Your task to perform on an android device: Open display settings Image 0: 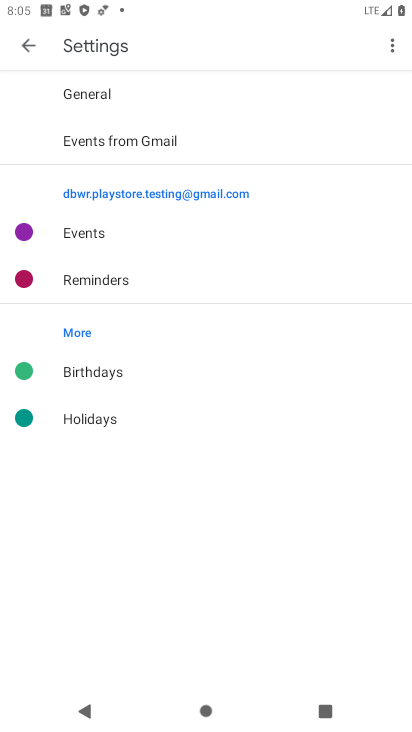
Step 0: press back button
Your task to perform on an android device: Open display settings Image 1: 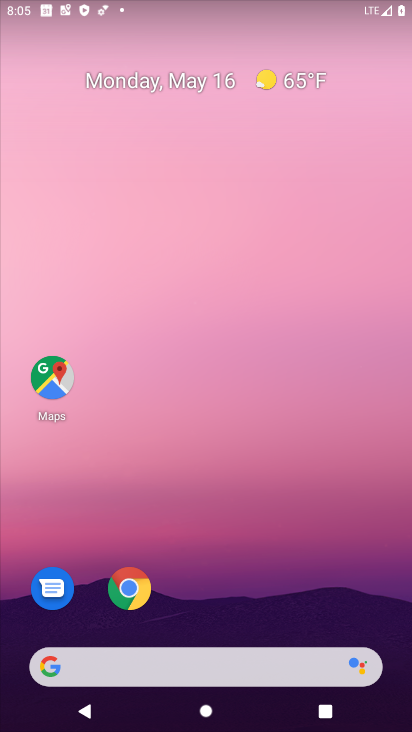
Step 1: drag from (240, 480) to (184, 45)
Your task to perform on an android device: Open display settings Image 2: 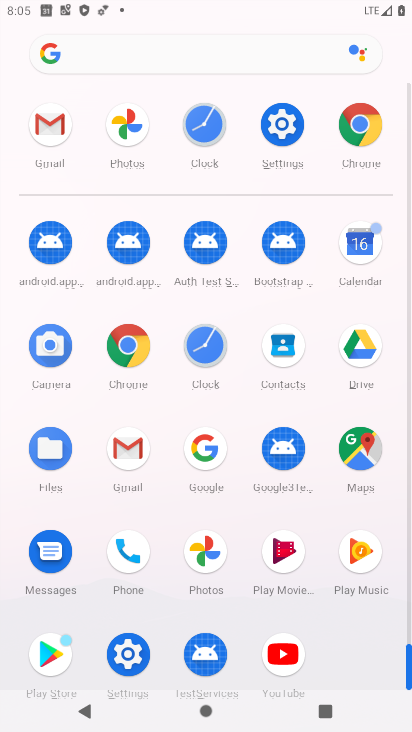
Step 2: click (127, 655)
Your task to perform on an android device: Open display settings Image 3: 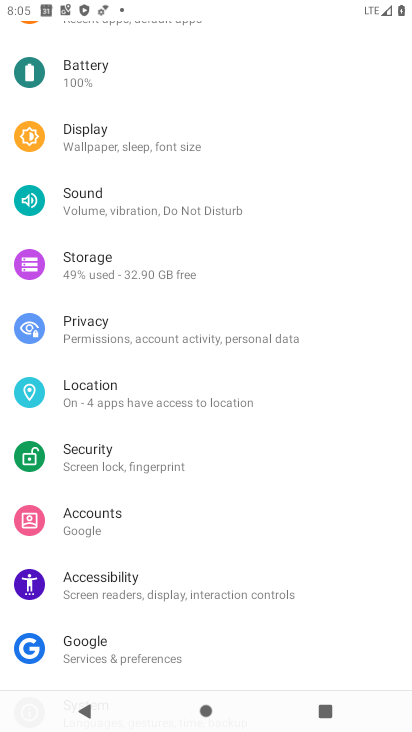
Step 3: click (132, 134)
Your task to perform on an android device: Open display settings Image 4: 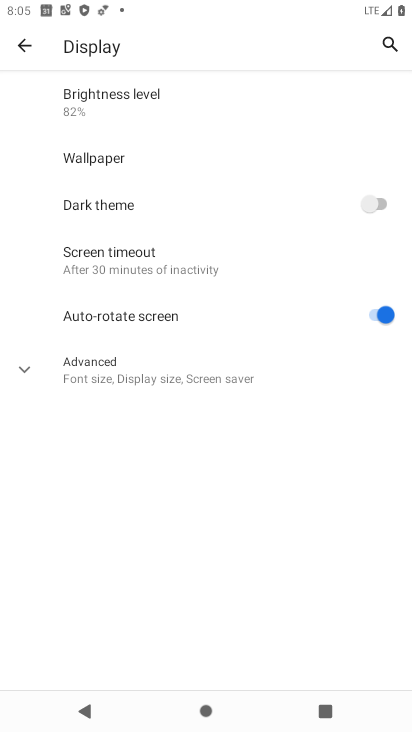
Step 4: click (31, 369)
Your task to perform on an android device: Open display settings Image 5: 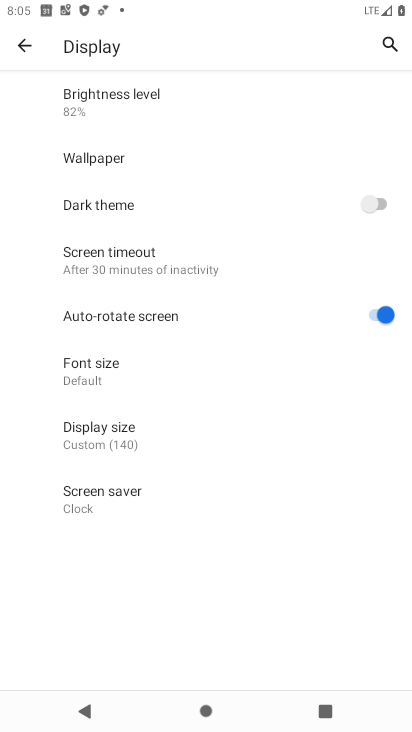
Step 5: task complete